Your task to perform on an android device: Open Google Maps Image 0: 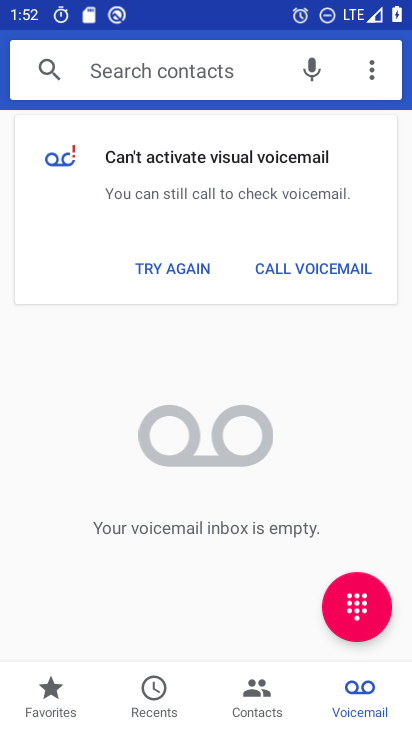
Step 0: press home button
Your task to perform on an android device: Open Google Maps Image 1: 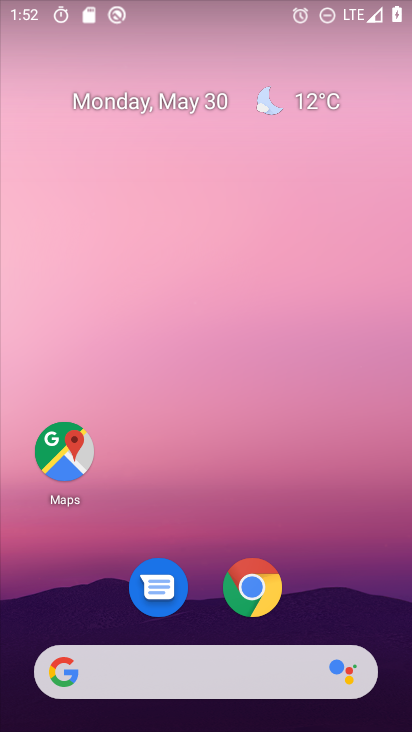
Step 1: click (75, 444)
Your task to perform on an android device: Open Google Maps Image 2: 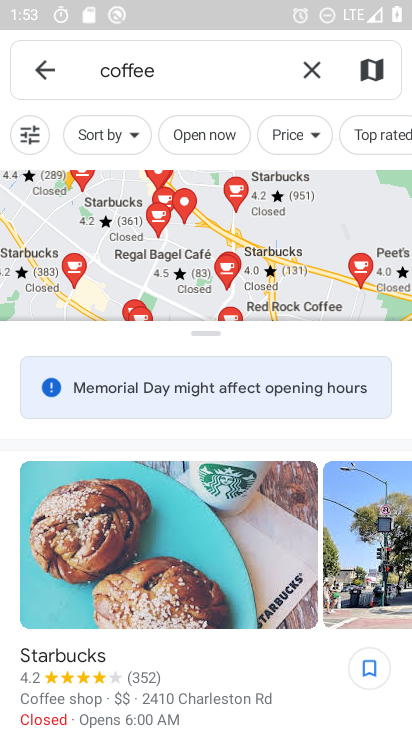
Step 2: task complete